Your task to perform on an android device: Search for "alienware area 51" on newegg, select the first entry, and add it to the cart. Image 0: 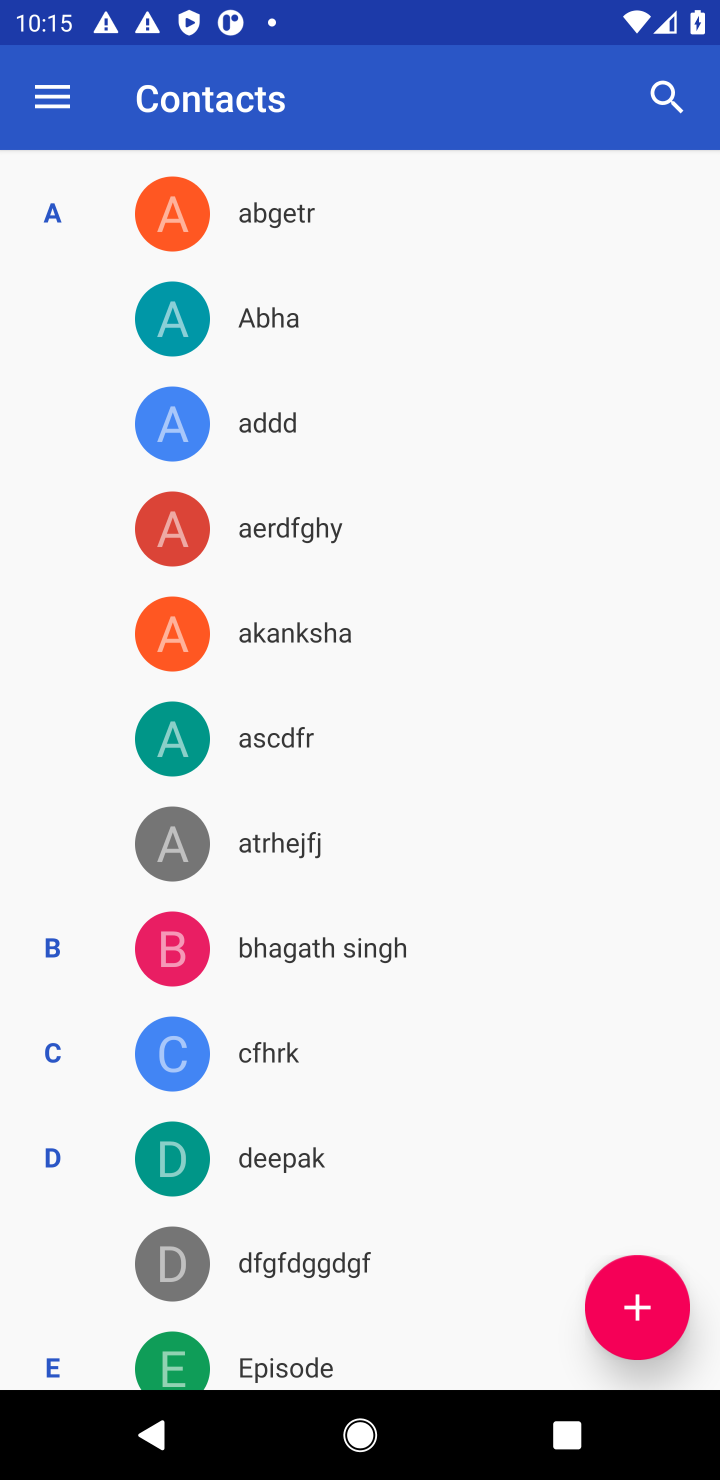
Step 0: press home button
Your task to perform on an android device: Search for "alienware area 51" on newegg, select the first entry, and add it to the cart. Image 1: 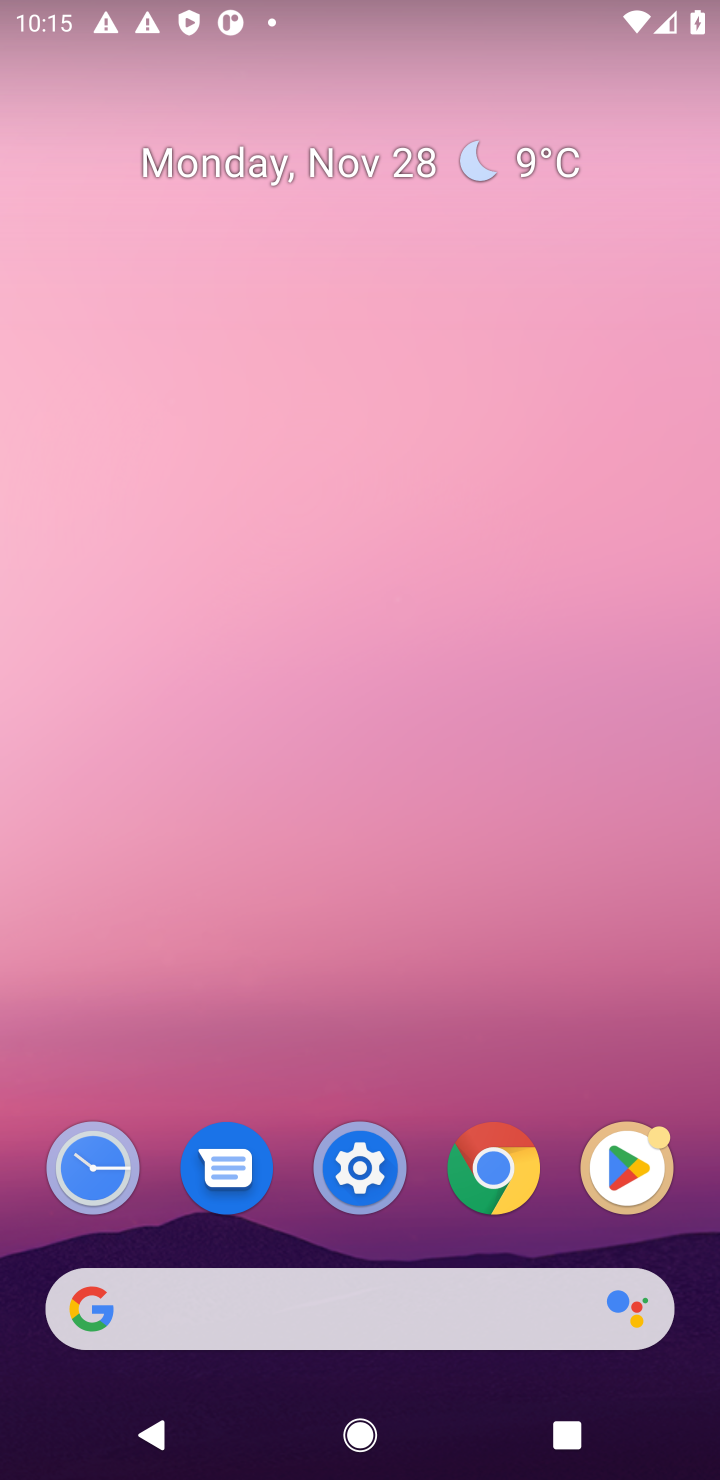
Step 1: click (313, 1292)
Your task to perform on an android device: Search for "alienware area 51" on newegg, select the first entry, and add it to the cart. Image 2: 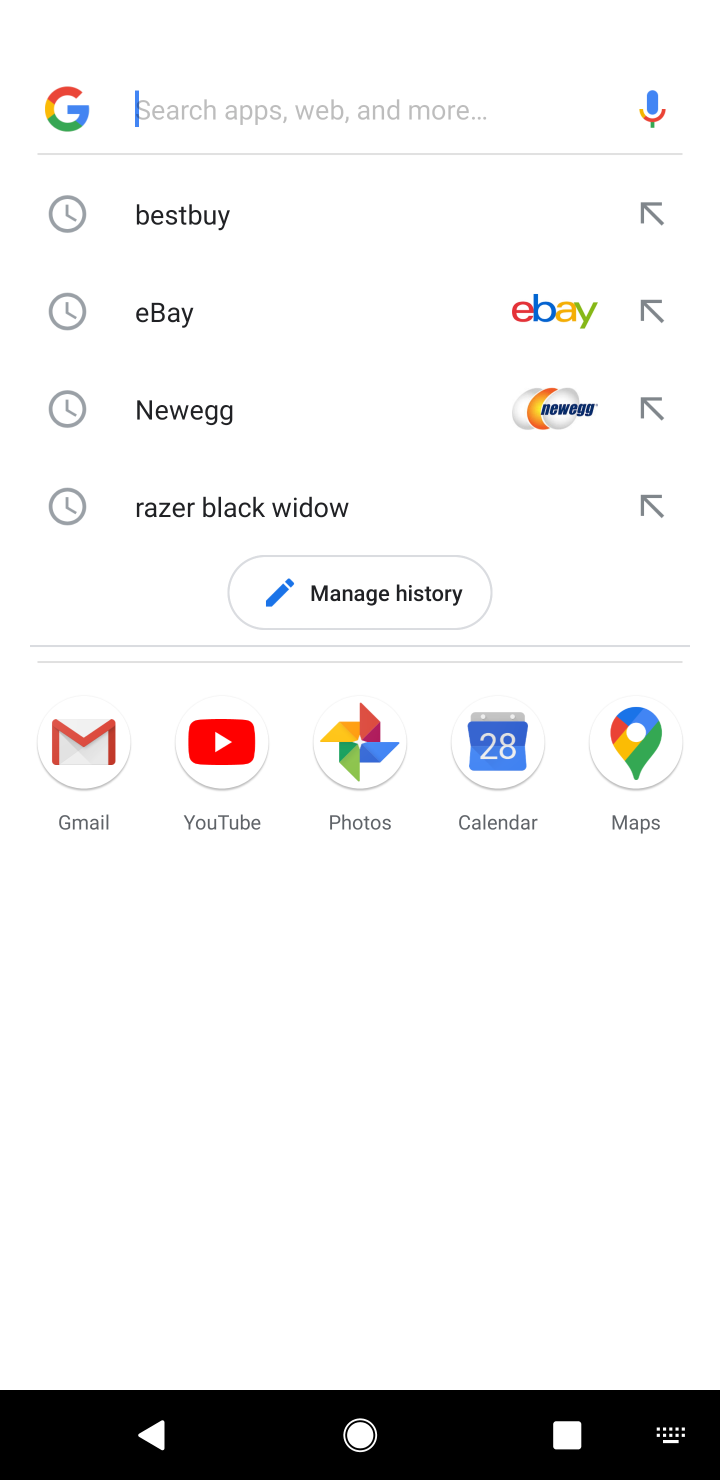
Step 2: type "newegg"
Your task to perform on an android device: Search for "alienware area 51" on newegg, select the first entry, and add it to the cart. Image 3: 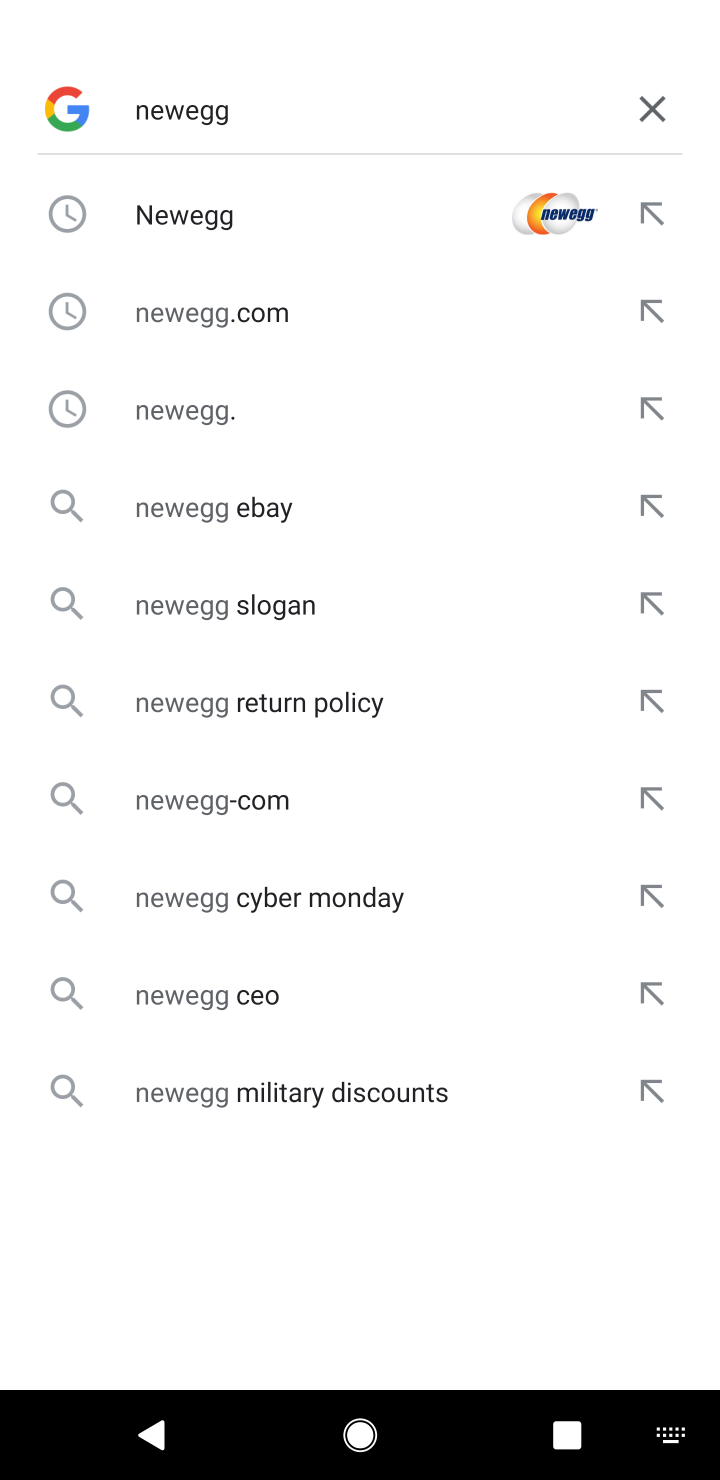
Step 3: click (229, 243)
Your task to perform on an android device: Search for "alienware area 51" on newegg, select the first entry, and add it to the cart. Image 4: 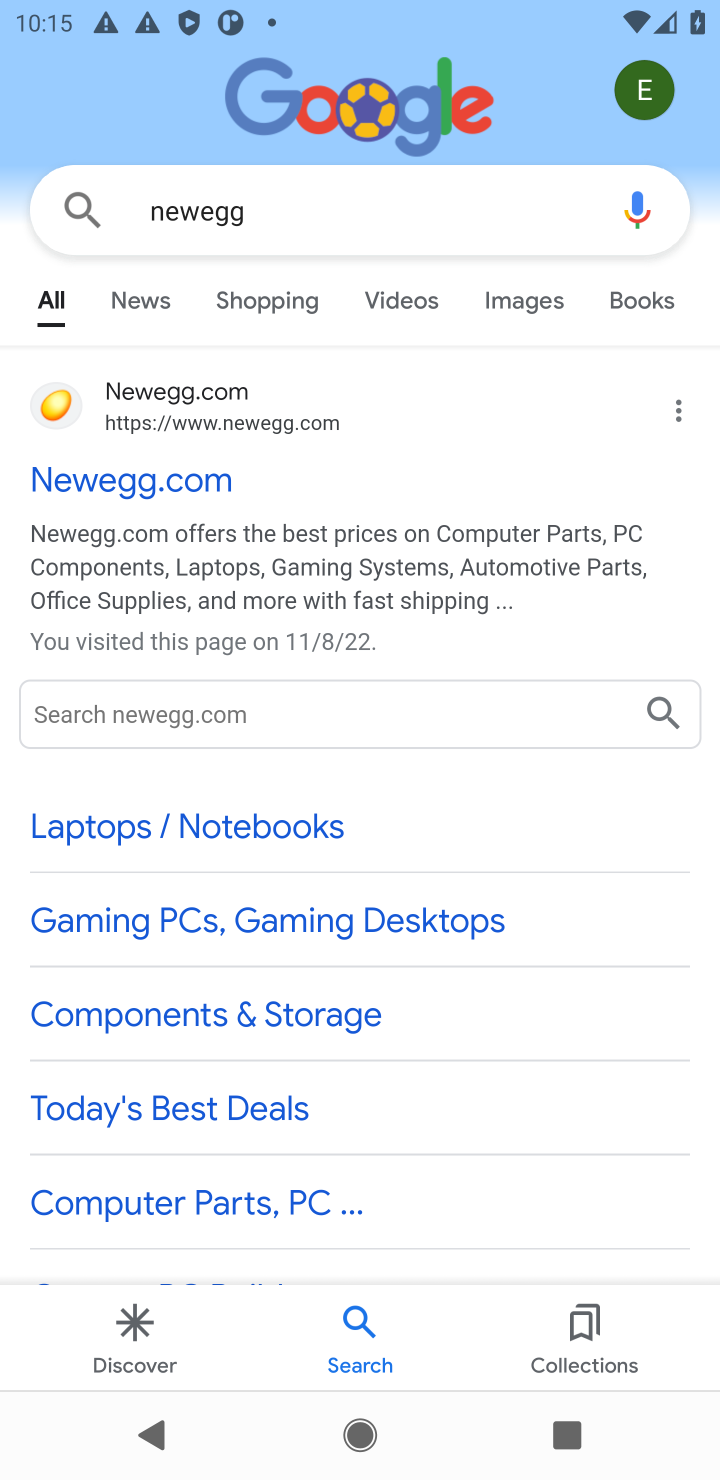
Step 4: click (59, 461)
Your task to perform on an android device: Search for "alienware area 51" on newegg, select the first entry, and add it to the cart. Image 5: 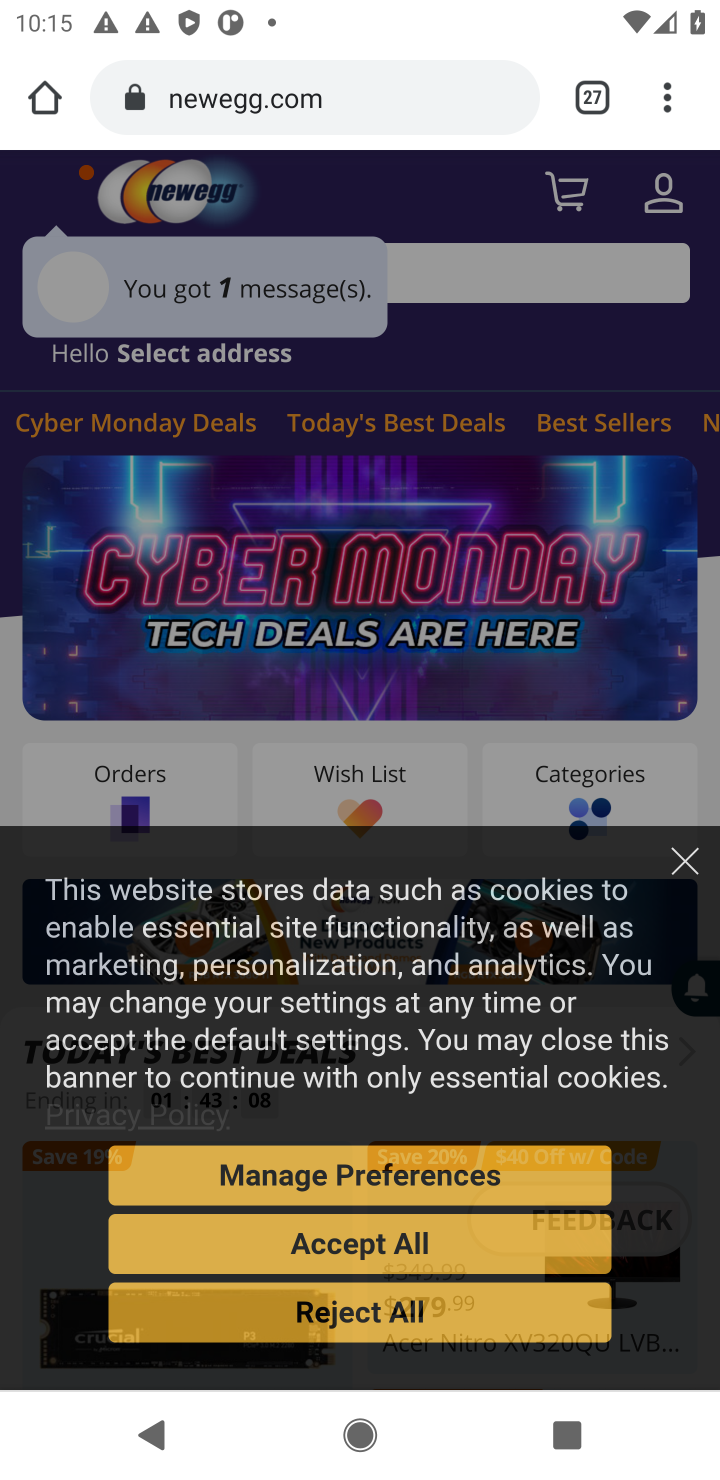
Step 5: task complete